Your task to perform on an android device: Go to network settings Image 0: 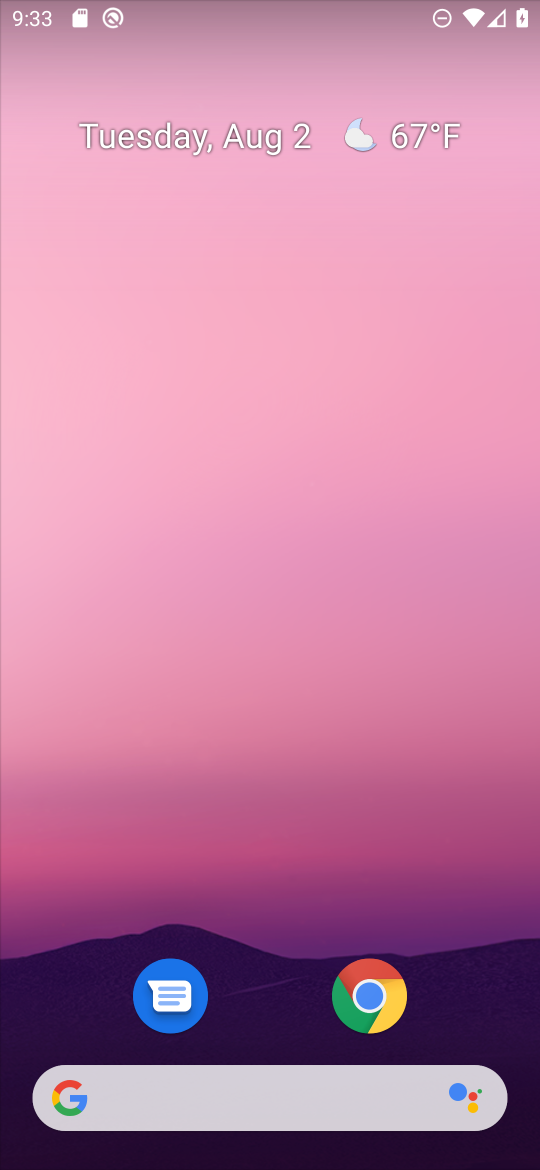
Step 0: drag from (292, 1032) to (518, 33)
Your task to perform on an android device: Go to network settings Image 1: 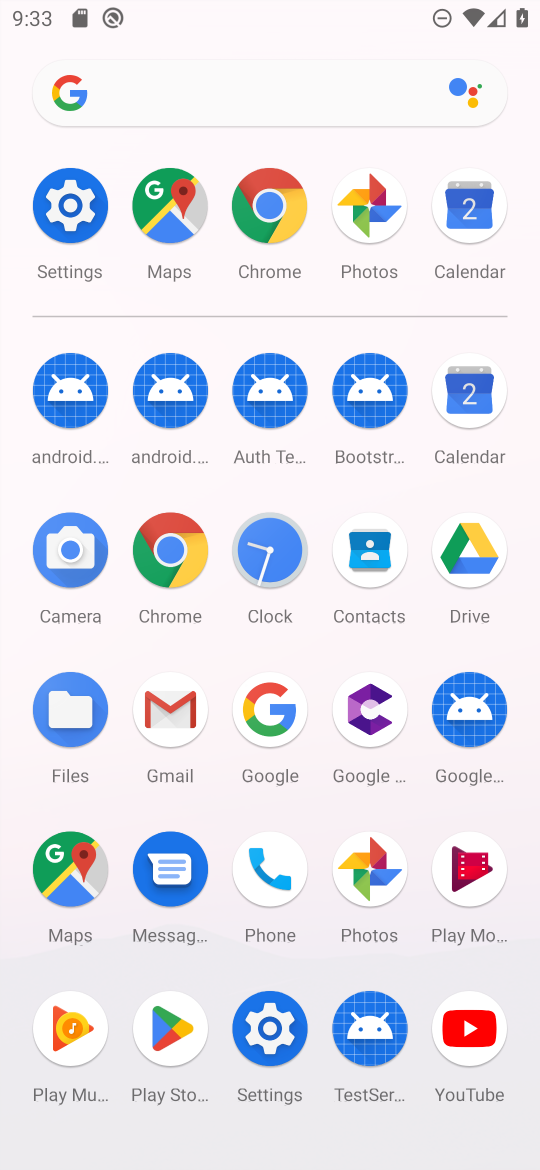
Step 1: click (274, 1016)
Your task to perform on an android device: Go to network settings Image 2: 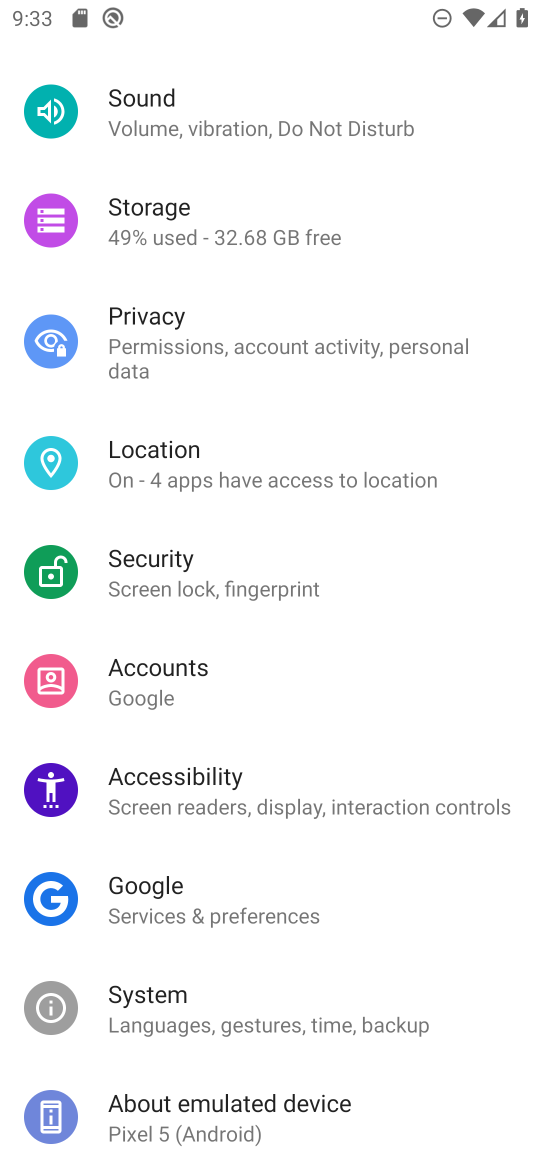
Step 2: drag from (229, 88) to (170, 932)
Your task to perform on an android device: Go to network settings Image 3: 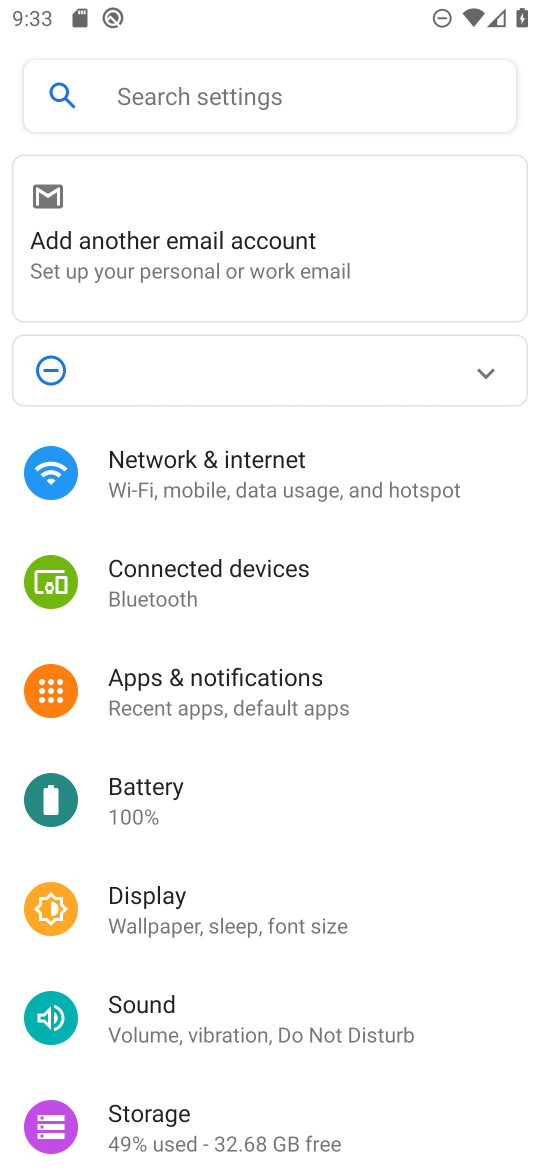
Step 3: click (147, 456)
Your task to perform on an android device: Go to network settings Image 4: 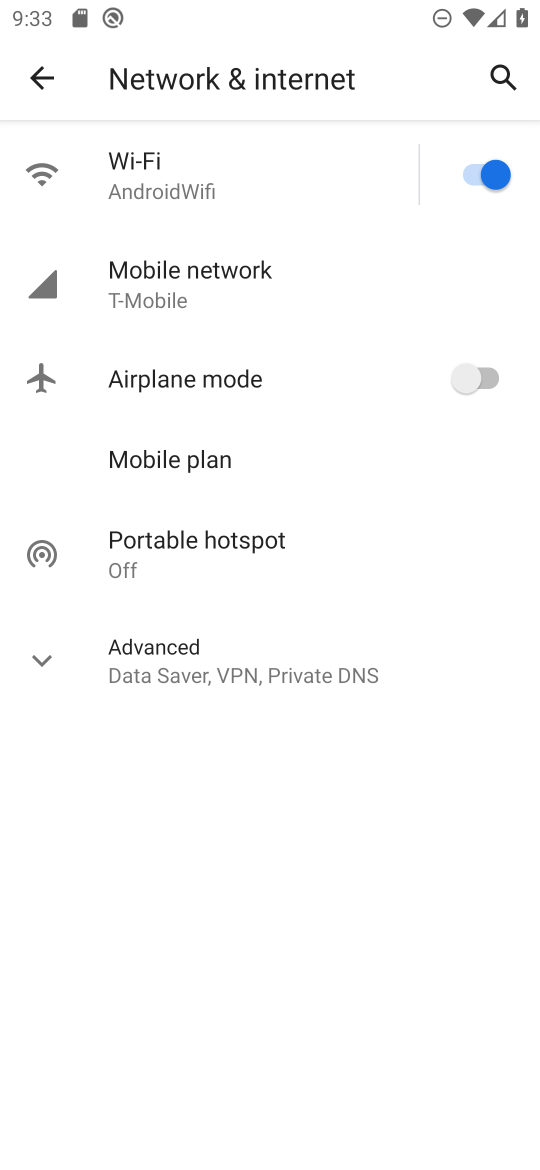
Step 4: task complete